Your task to perform on an android device: Show the shopping cart on amazon.com. Add "usb-c to usb-a" to the cart on amazon.com Image 0: 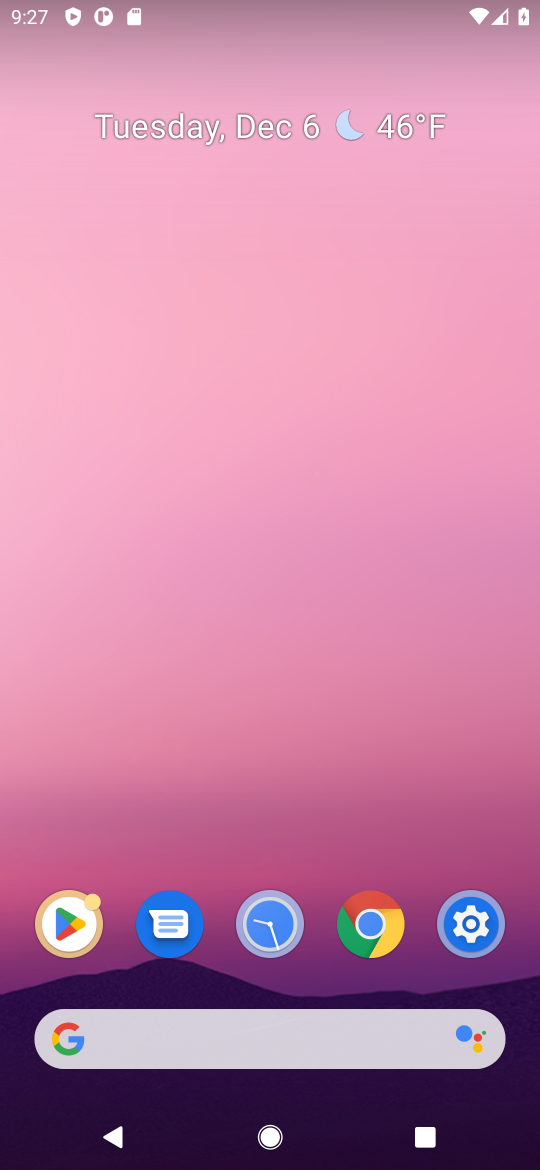
Step 0: click (188, 1015)
Your task to perform on an android device: Show the shopping cart on amazon.com. Add "usb-c to usb-a" to the cart on amazon.com Image 1: 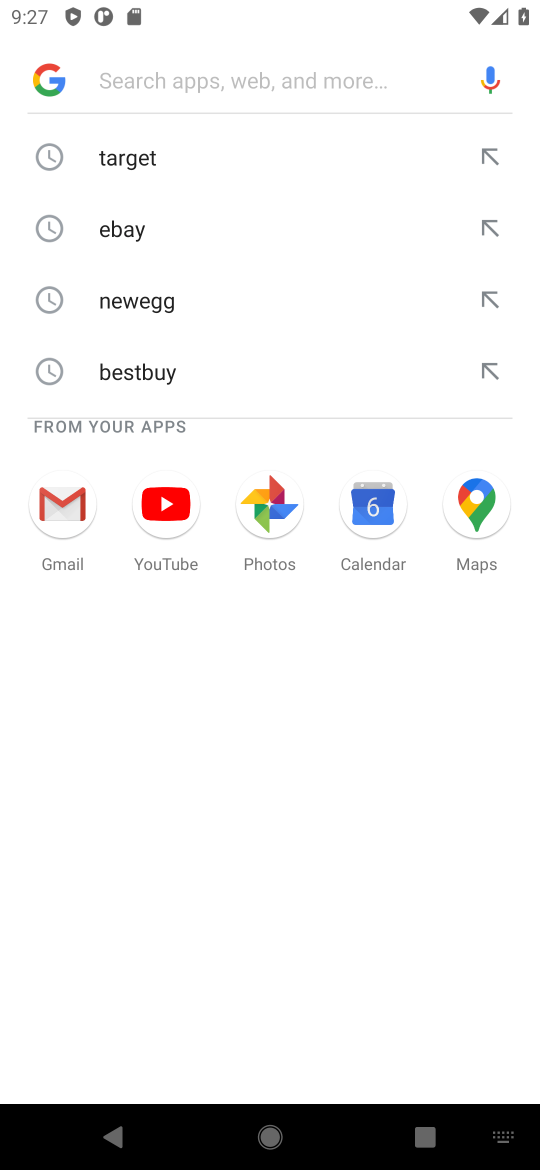
Step 1: type "amazon.com"
Your task to perform on an android device: Show the shopping cart on amazon.com. Add "usb-c to usb-a" to the cart on amazon.com Image 2: 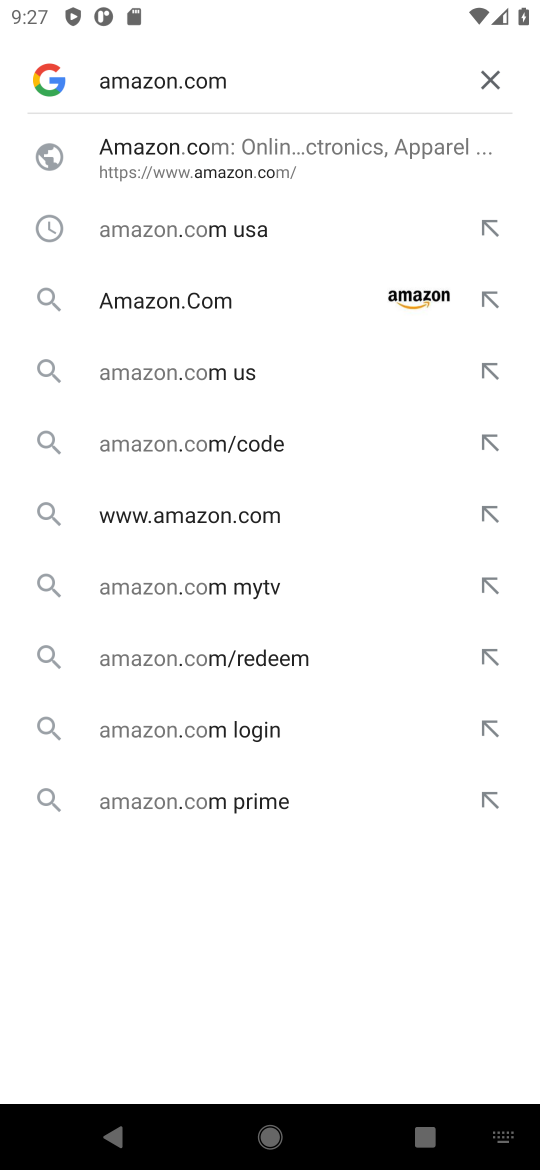
Step 2: click (186, 147)
Your task to perform on an android device: Show the shopping cart on amazon.com. Add "usb-c to usb-a" to the cart on amazon.com Image 3: 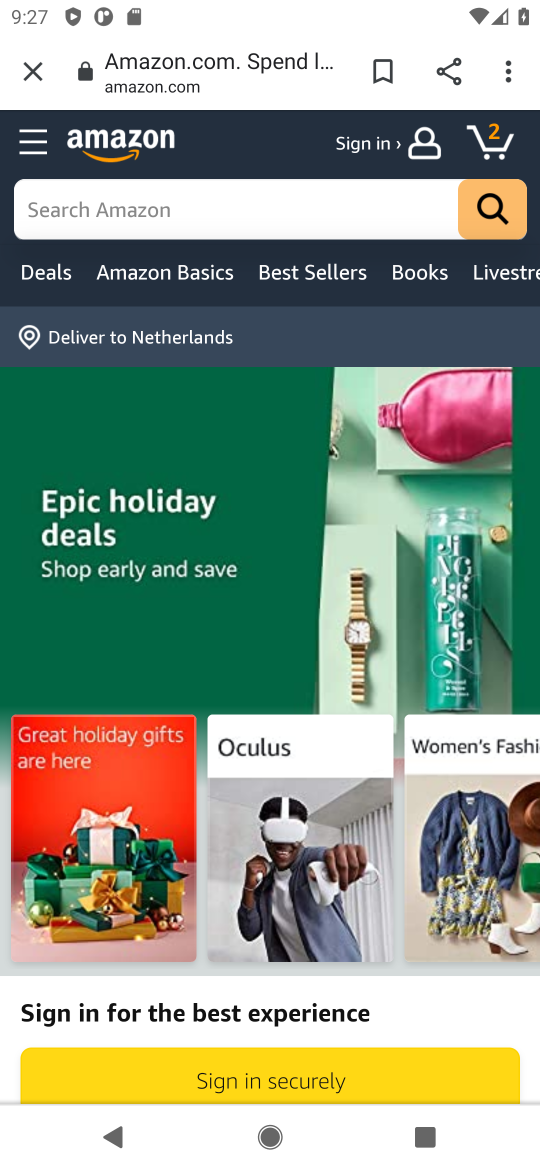
Step 3: click (206, 197)
Your task to perform on an android device: Show the shopping cart on amazon.com. Add "usb-c to usb-a" to the cart on amazon.com Image 4: 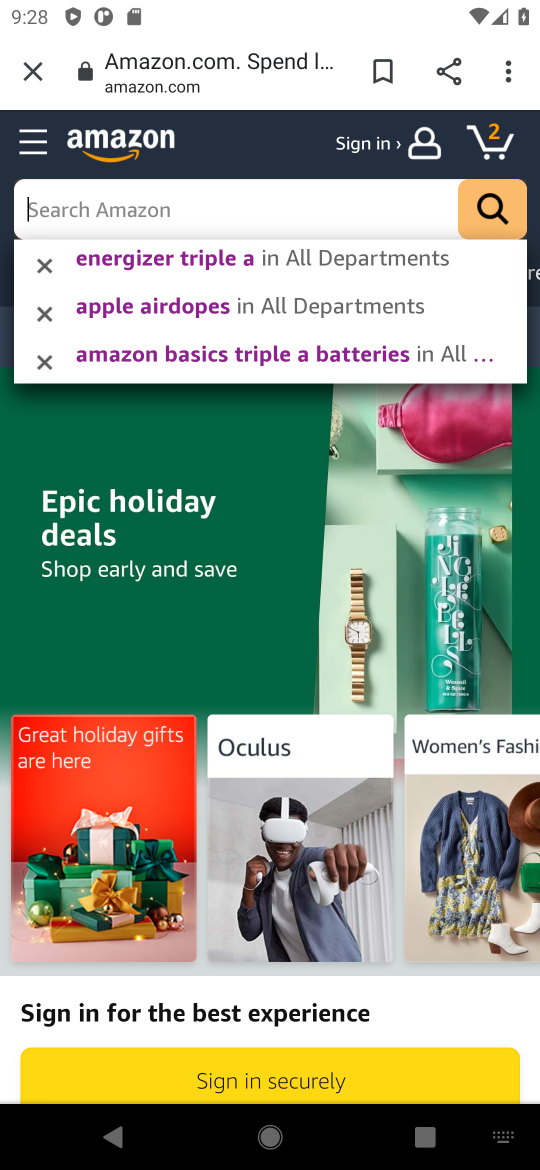
Step 4: type "usb-c to usb-a"
Your task to perform on an android device: Show the shopping cart on amazon.com. Add "usb-c to usb-a" to the cart on amazon.com Image 5: 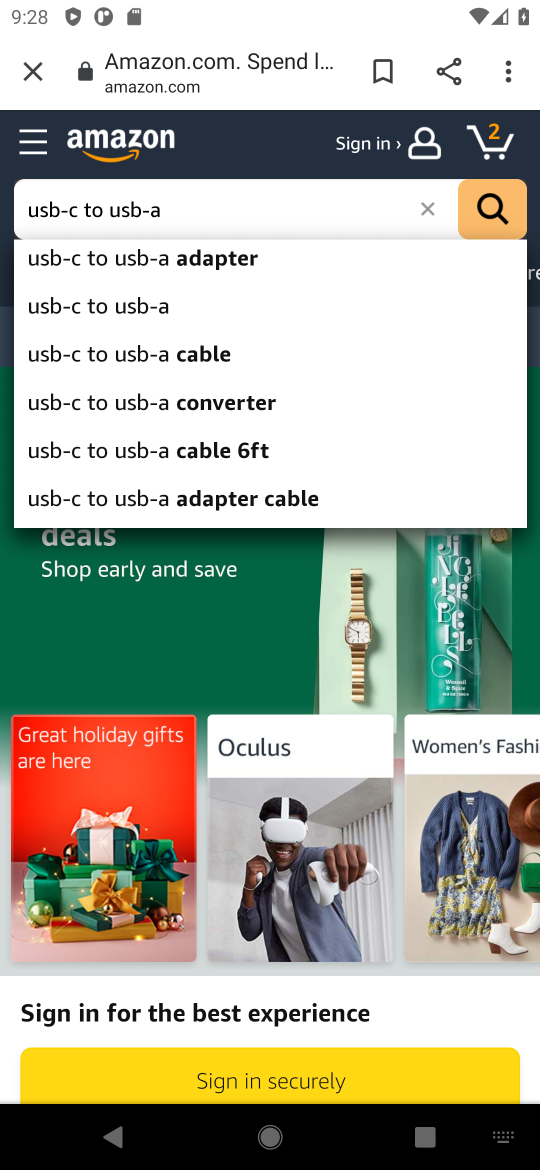
Step 5: click (511, 221)
Your task to perform on an android device: Show the shopping cart on amazon.com. Add "usb-c to usb-a" to the cart on amazon.com Image 6: 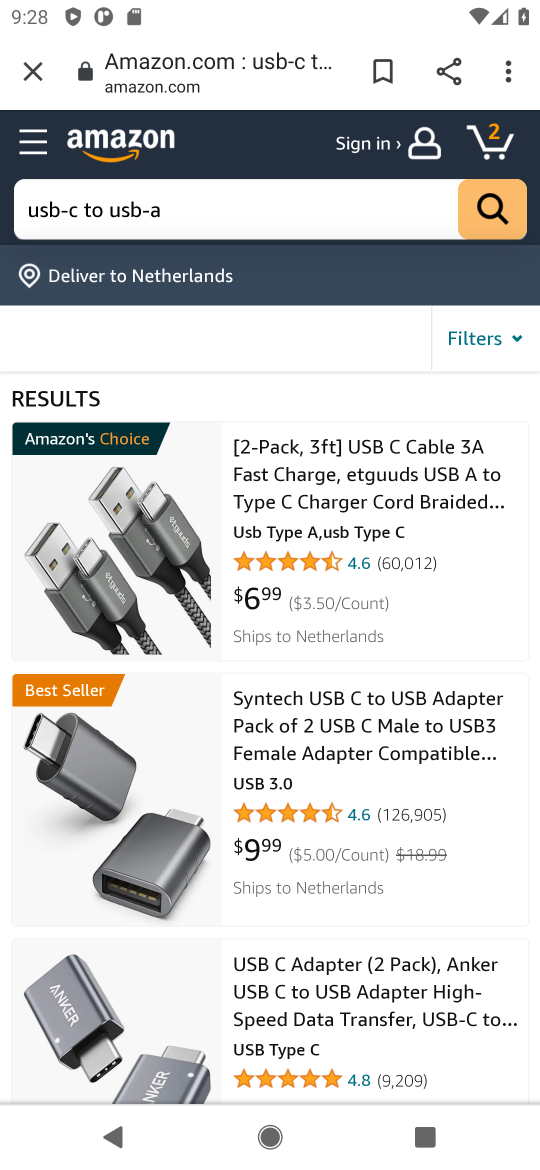
Step 6: click (304, 471)
Your task to perform on an android device: Show the shopping cart on amazon.com. Add "usb-c to usb-a" to the cart on amazon.com Image 7: 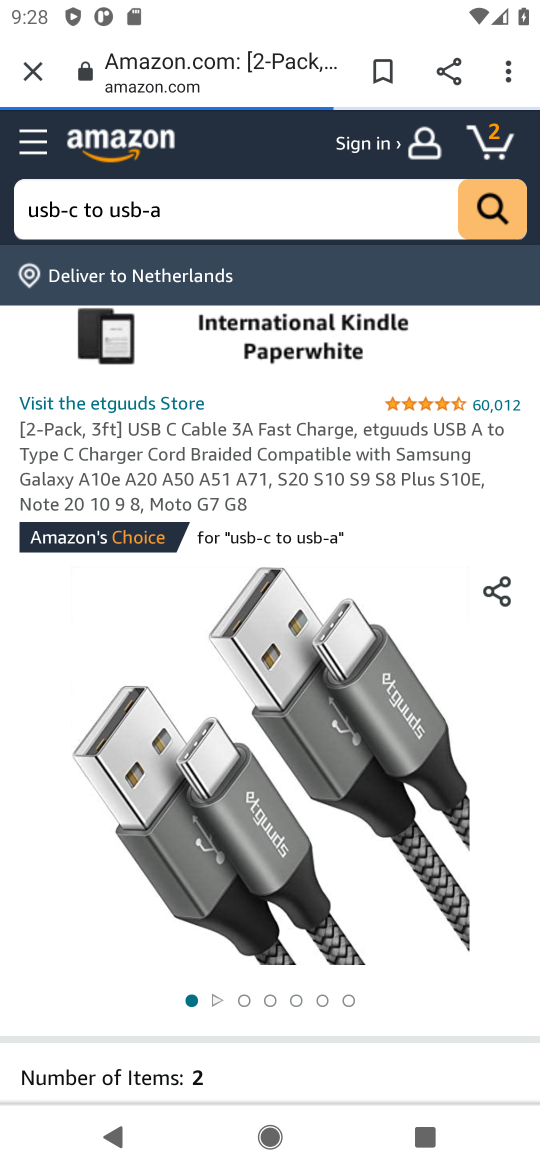
Step 7: drag from (225, 888) to (146, 405)
Your task to perform on an android device: Show the shopping cart on amazon.com. Add "usb-c to usb-a" to the cart on amazon.com Image 8: 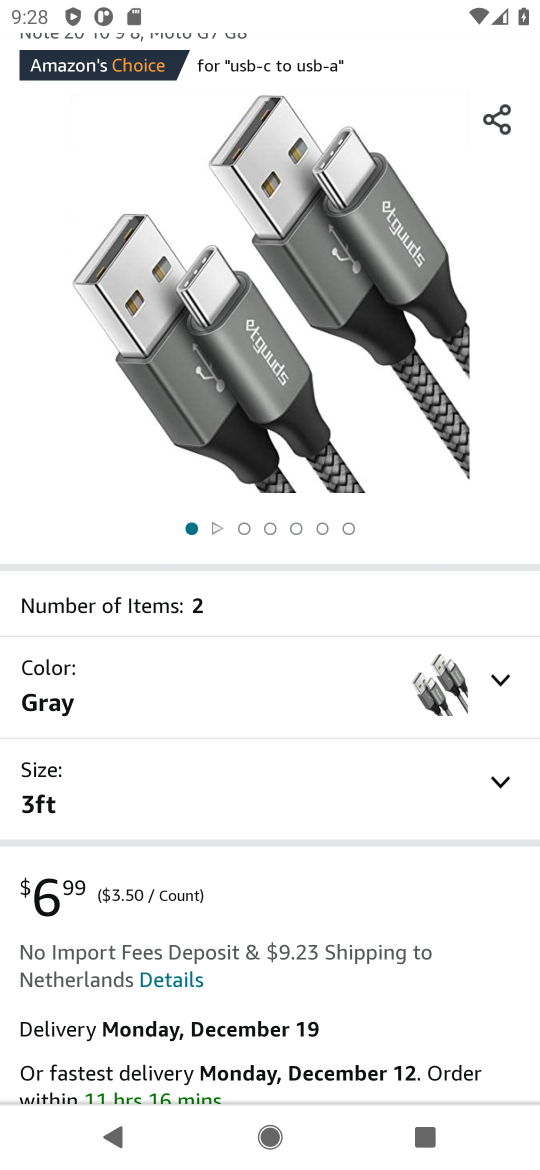
Step 8: drag from (391, 978) to (336, 434)
Your task to perform on an android device: Show the shopping cart on amazon.com. Add "usb-c to usb-a" to the cart on amazon.com Image 9: 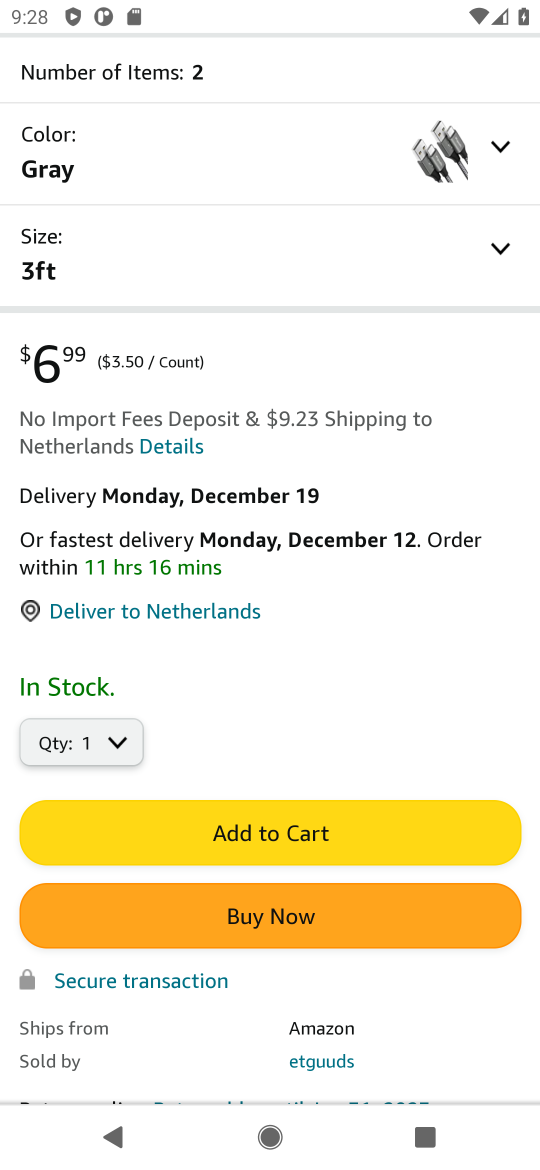
Step 9: click (385, 840)
Your task to perform on an android device: Show the shopping cart on amazon.com. Add "usb-c to usb-a" to the cart on amazon.com Image 10: 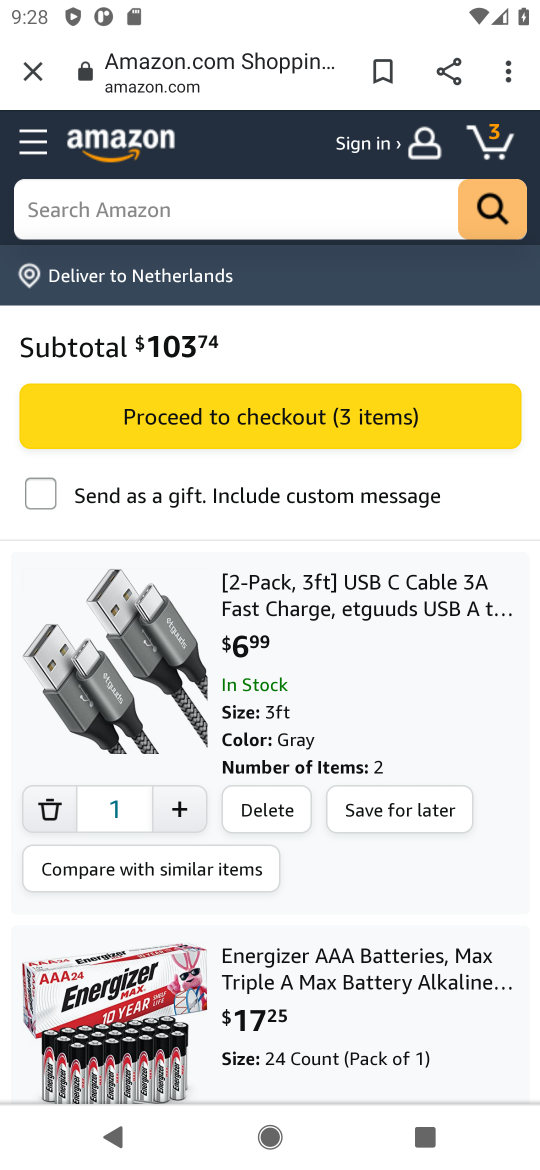
Step 10: task complete